Your task to perform on an android device: Search for sushi restaurants on Maps Image 0: 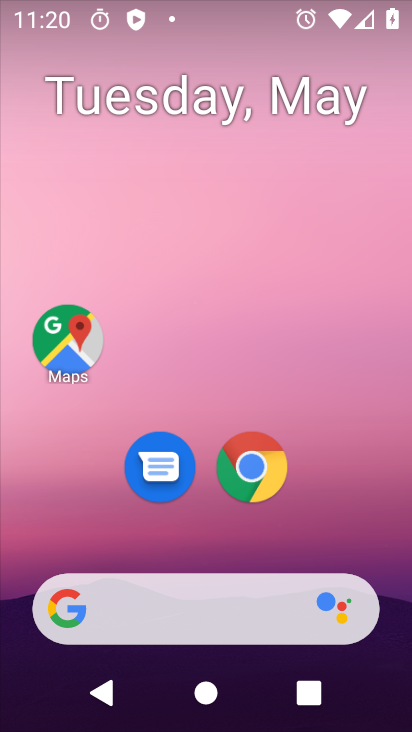
Step 0: drag from (356, 533) to (166, 10)
Your task to perform on an android device: Search for sushi restaurants on Maps Image 1: 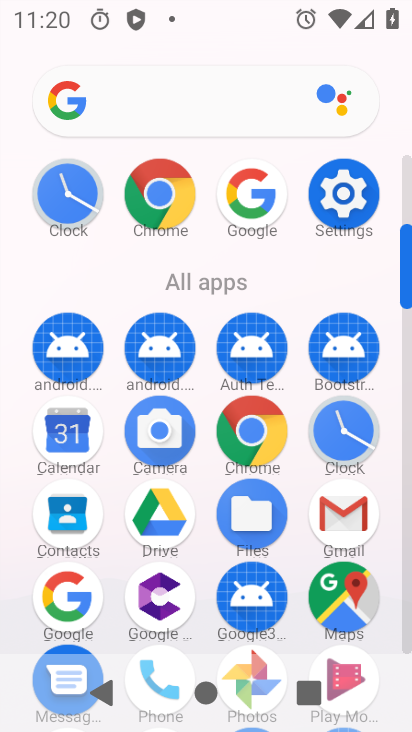
Step 1: drag from (12, 448) to (9, 224)
Your task to perform on an android device: Search for sushi restaurants on Maps Image 2: 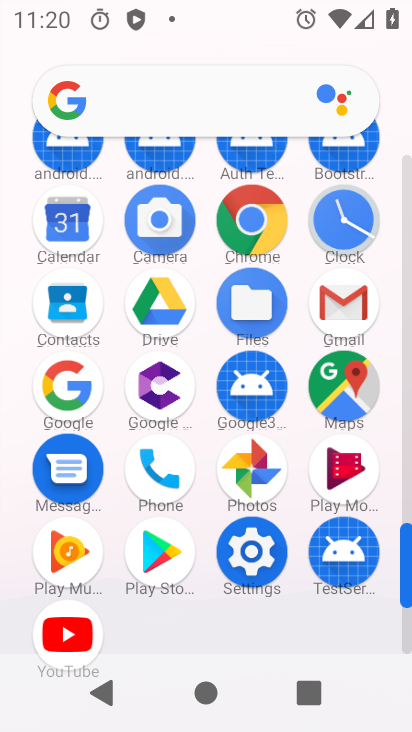
Step 2: click (335, 382)
Your task to perform on an android device: Search for sushi restaurants on Maps Image 3: 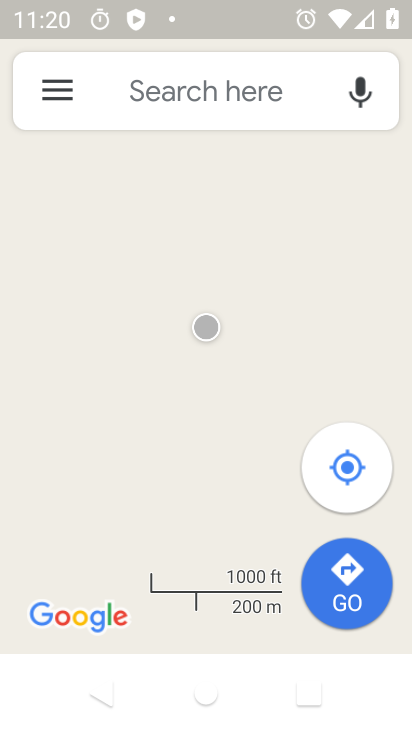
Step 3: click (281, 60)
Your task to perform on an android device: Search for sushi restaurants on Maps Image 4: 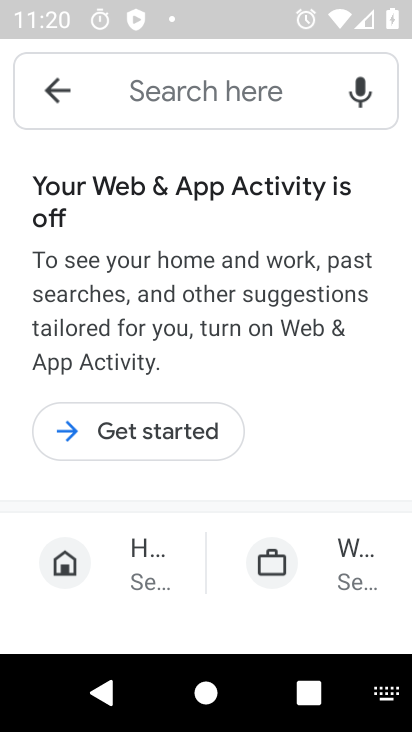
Step 4: click (260, 103)
Your task to perform on an android device: Search for sushi restaurants on Maps Image 5: 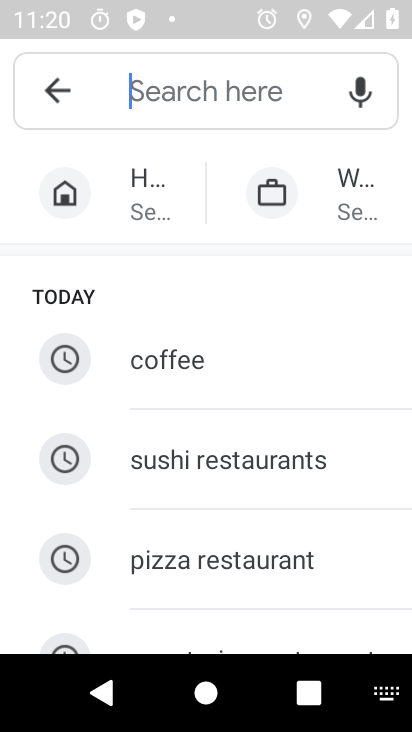
Step 5: click (173, 424)
Your task to perform on an android device: Search for sushi restaurants on Maps Image 6: 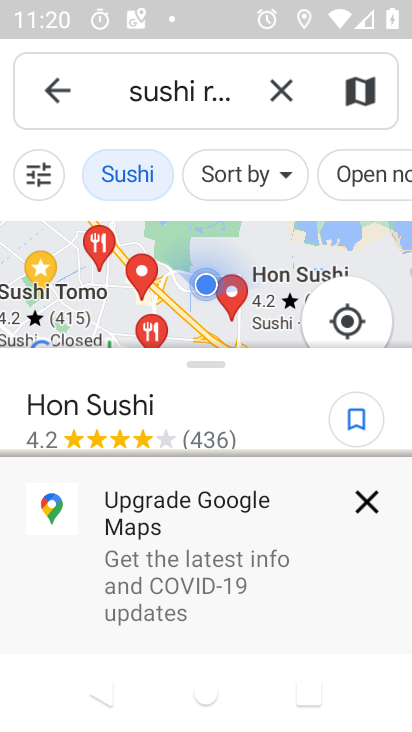
Step 6: click (357, 493)
Your task to perform on an android device: Search for sushi restaurants on Maps Image 7: 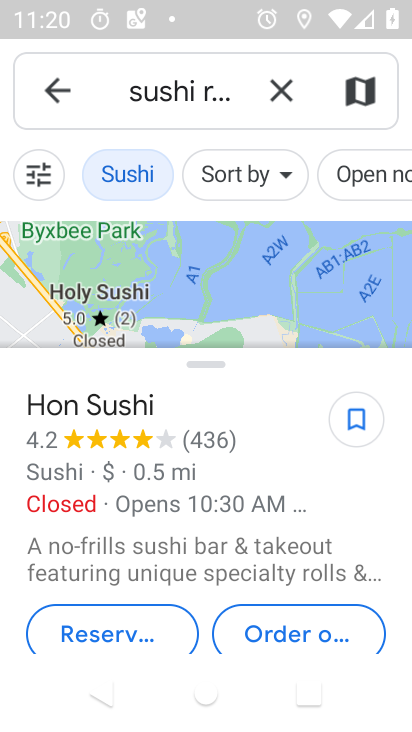
Step 7: task complete